Your task to perform on an android device: set an alarm Image 0: 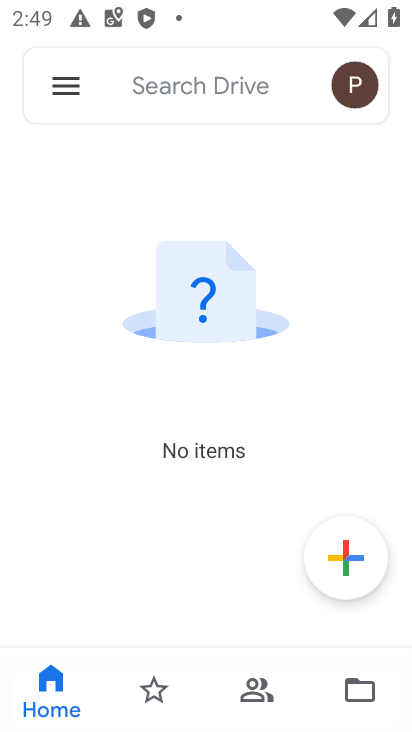
Step 0: press home button
Your task to perform on an android device: set an alarm Image 1: 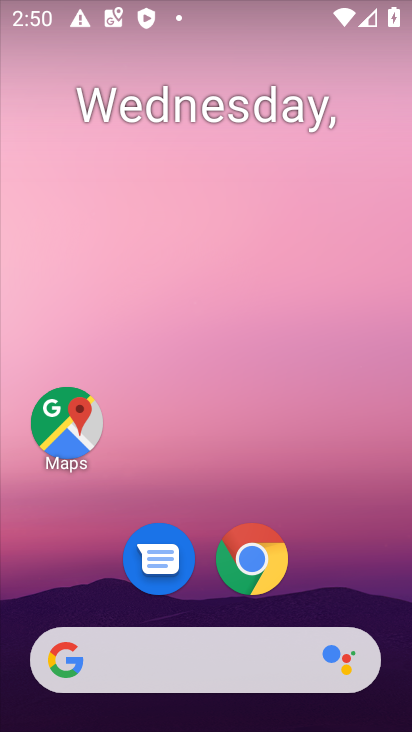
Step 1: drag from (210, 480) to (253, 47)
Your task to perform on an android device: set an alarm Image 2: 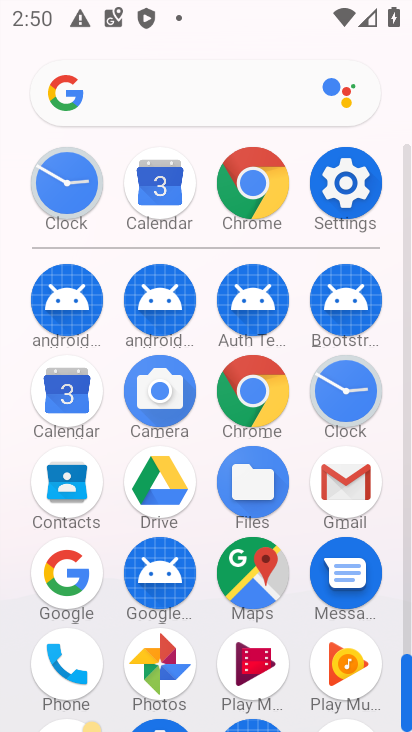
Step 2: click (344, 388)
Your task to perform on an android device: set an alarm Image 3: 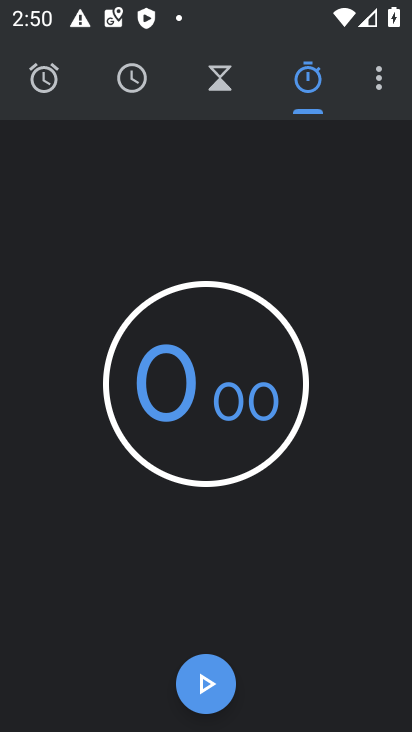
Step 3: click (44, 84)
Your task to perform on an android device: set an alarm Image 4: 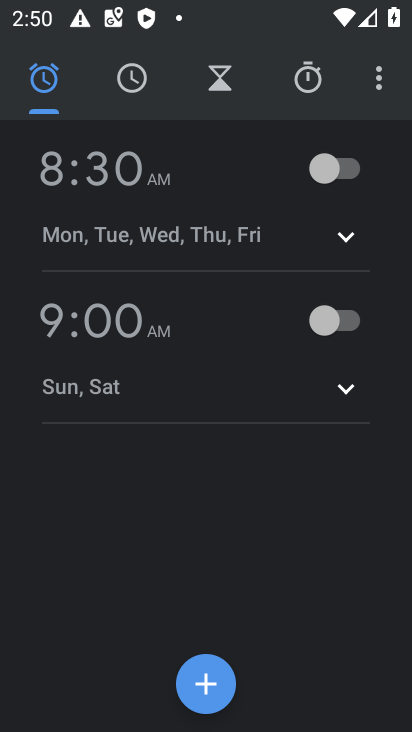
Step 4: click (209, 679)
Your task to perform on an android device: set an alarm Image 5: 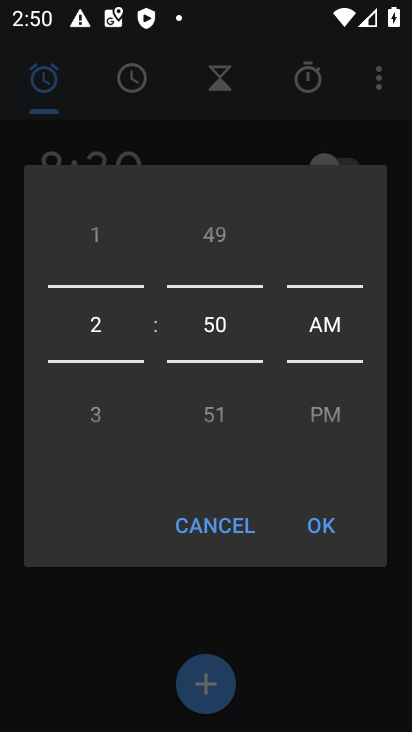
Step 5: click (216, 412)
Your task to perform on an android device: set an alarm Image 6: 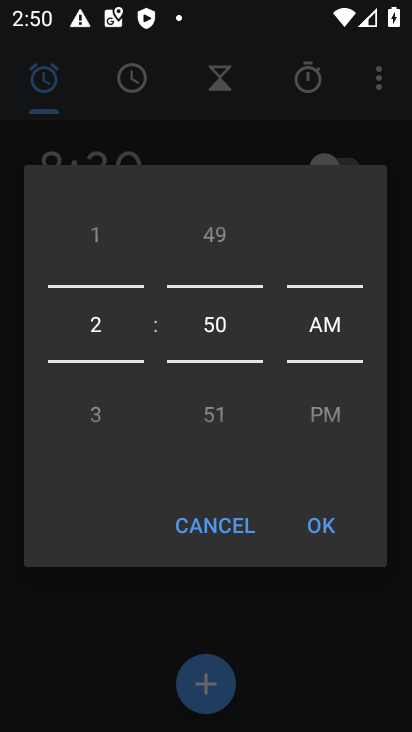
Step 6: click (335, 408)
Your task to perform on an android device: set an alarm Image 7: 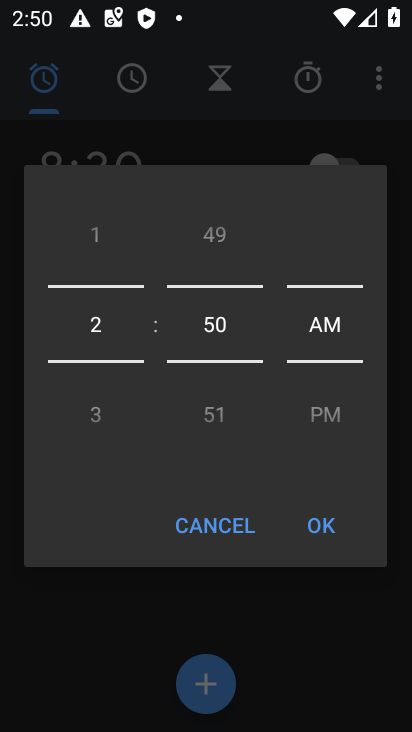
Step 7: click (218, 242)
Your task to perform on an android device: set an alarm Image 8: 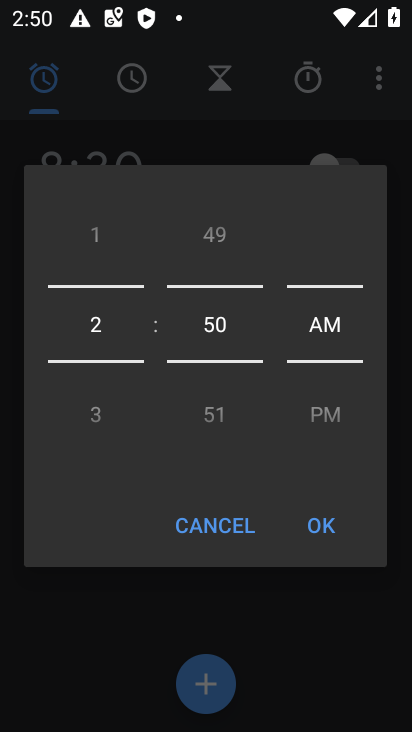
Step 8: drag from (218, 223) to (210, 408)
Your task to perform on an android device: set an alarm Image 9: 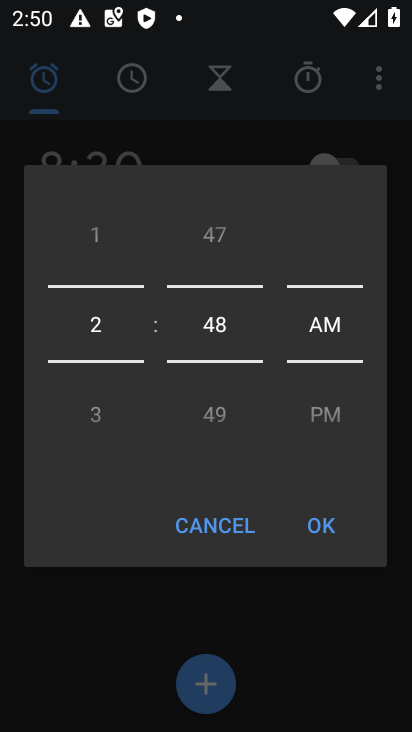
Step 9: drag from (325, 409) to (340, 278)
Your task to perform on an android device: set an alarm Image 10: 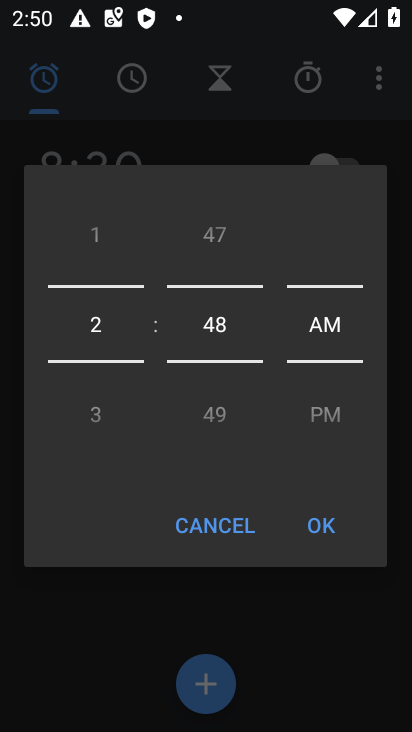
Step 10: drag from (318, 416) to (342, 254)
Your task to perform on an android device: set an alarm Image 11: 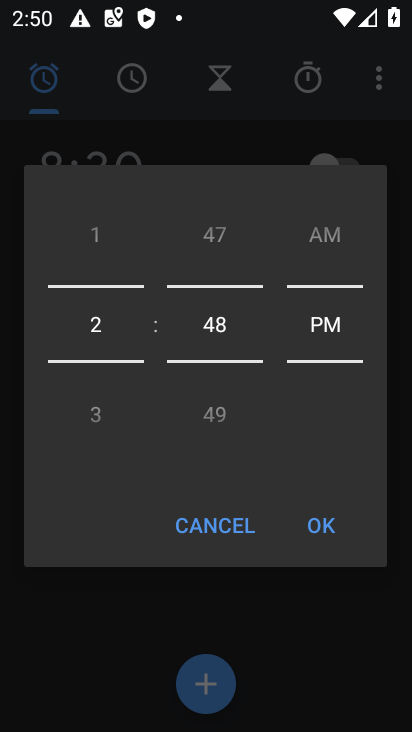
Step 11: click (320, 522)
Your task to perform on an android device: set an alarm Image 12: 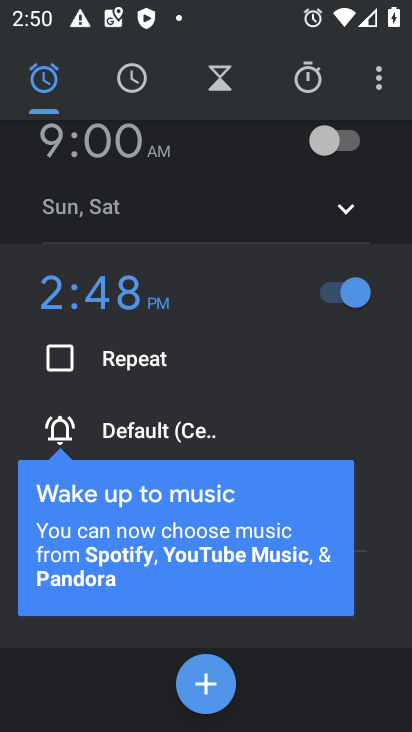
Step 12: task complete